Your task to perform on an android device: show emergency info Image 0: 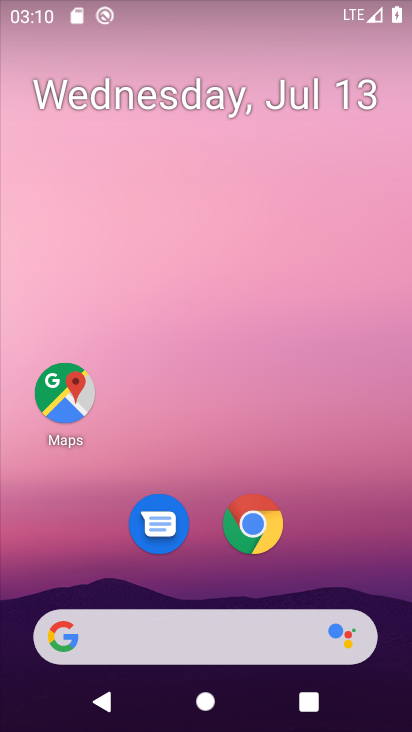
Step 0: drag from (310, 544) to (308, 32)
Your task to perform on an android device: show emergency info Image 1: 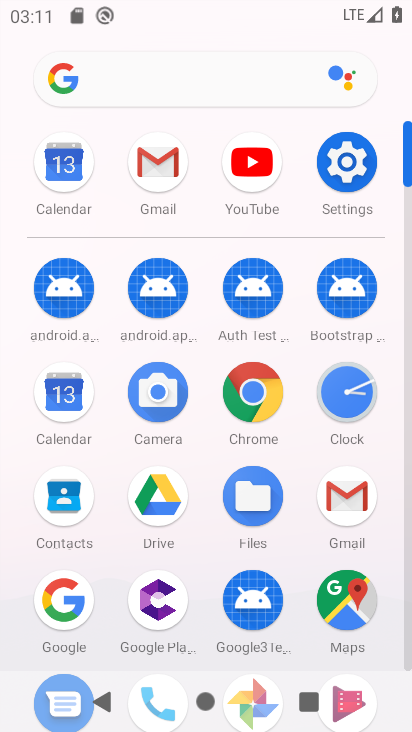
Step 1: click (347, 167)
Your task to perform on an android device: show emergency info Image 2: 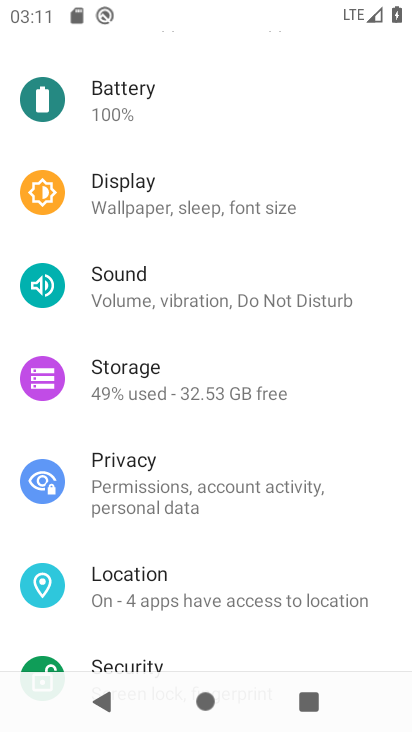
Step 2: drag from (283, 567) to (264, 38)
Your task to perform on an android device: show emergency info Image 3: 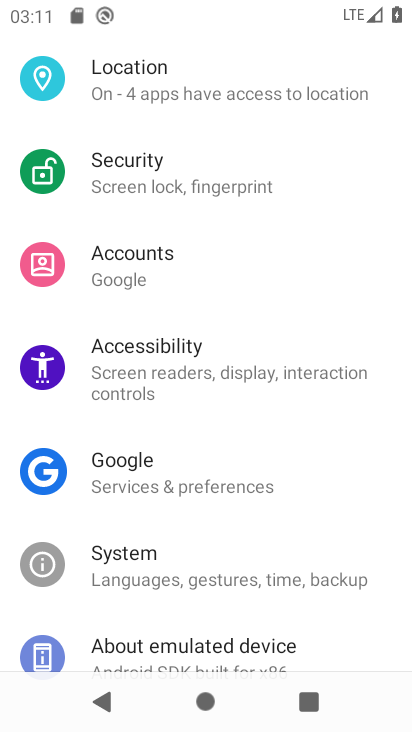
Step 3: drag from (270, 522) to (260, 108)
Your task to perform on an android device: show emergency info Image 4: 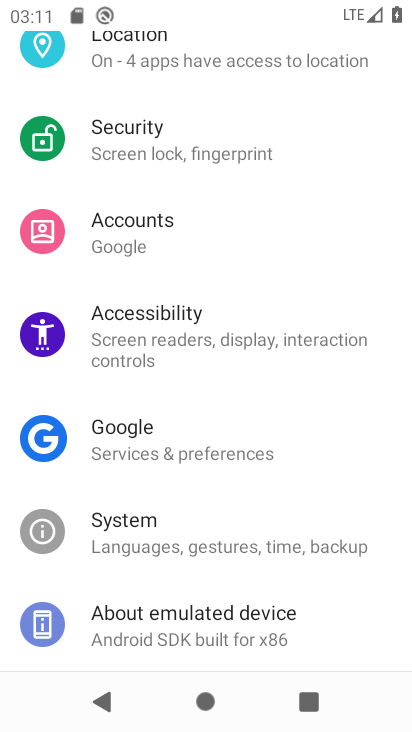
Step 4: click (254, 617)
Your task to perform on an android device: show emergency info Image 5: 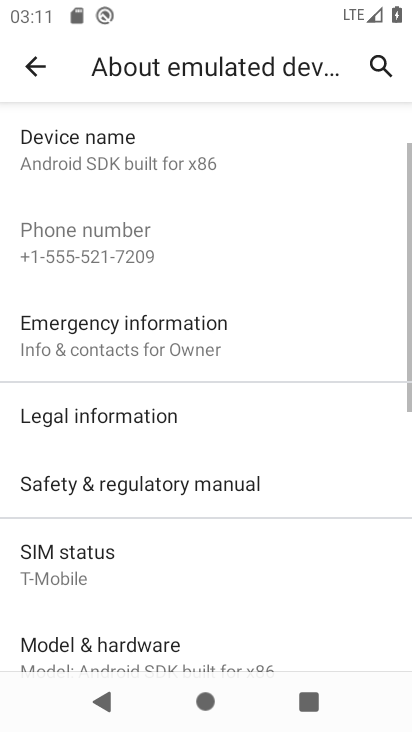
Step 5: click (187, 330)
Your task to perform on an android device: show emergency info Image 6: 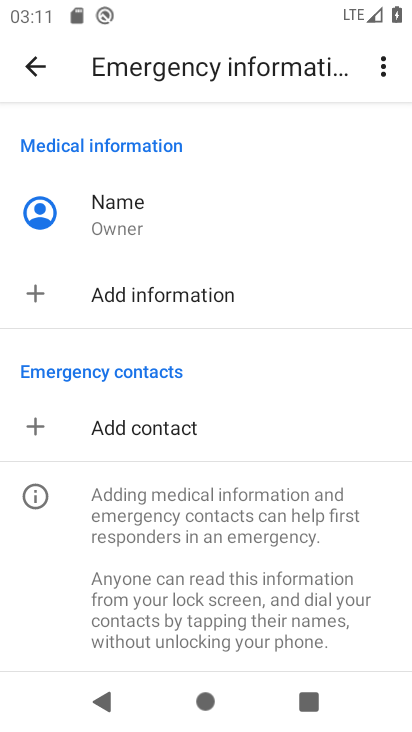
Step 6: task complete